Your task to perform on an android device: set an alarm Image 0: 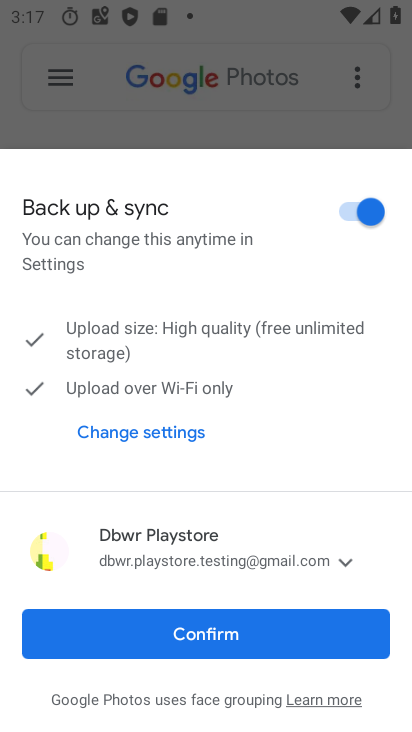
Step 0: press home button
Your task to perform on an android device: set an alarm Image 1: 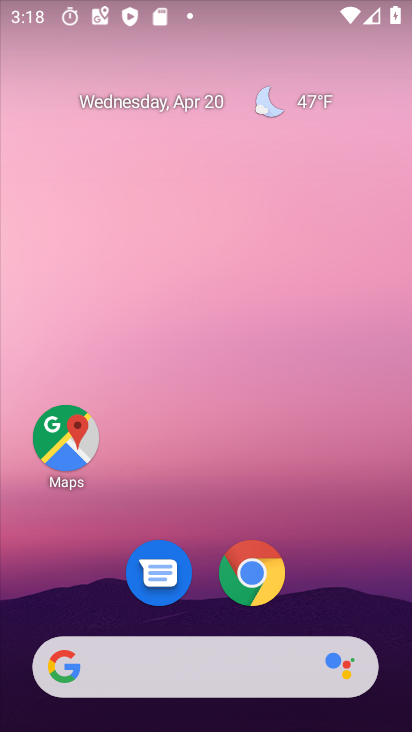
Step 1: drag from (211, 723) to (203, 179)
Your task to perform on an android device: set an alarm Image 2: 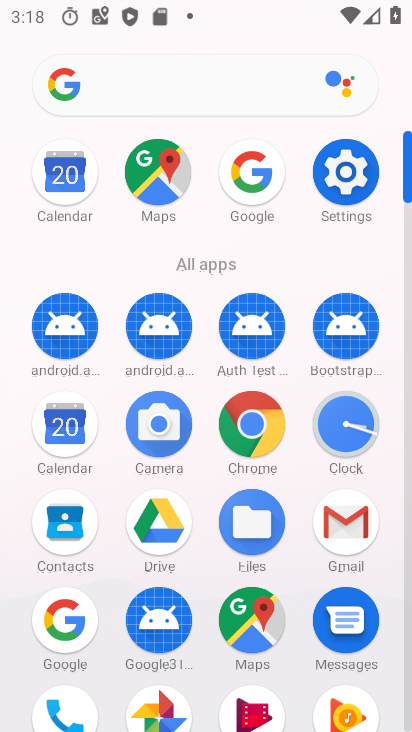
Step 2: click (351, 424)
Your task to perform on an android device: set an alarm Image 3: 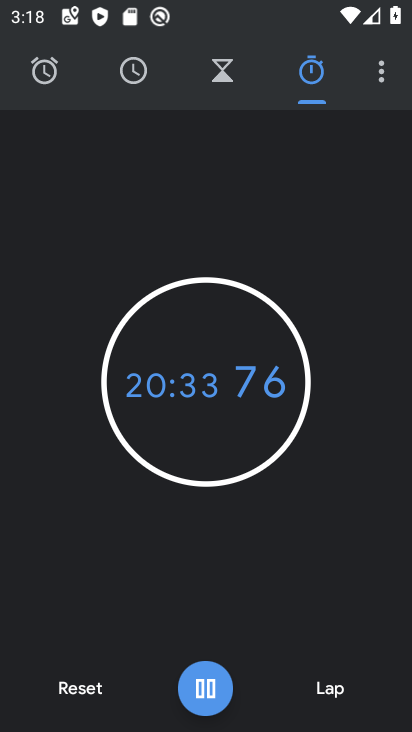
Step 3: click (44, 68)
Your task to perform on an android device: set an alarm Image 4: 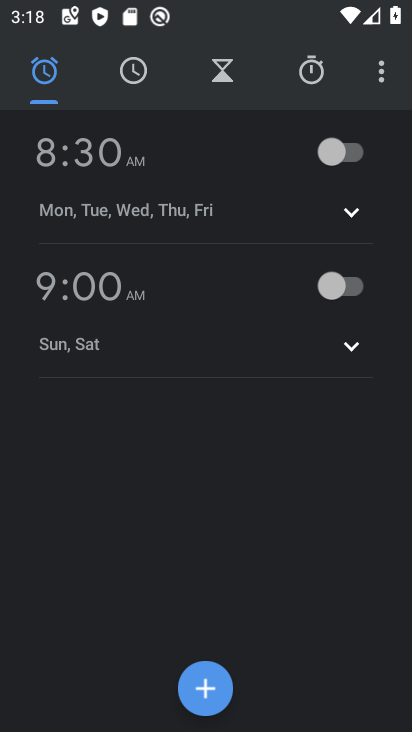
Step 4: click (207, 683)
Your task to perform on an android device: set an alarm Image 5: 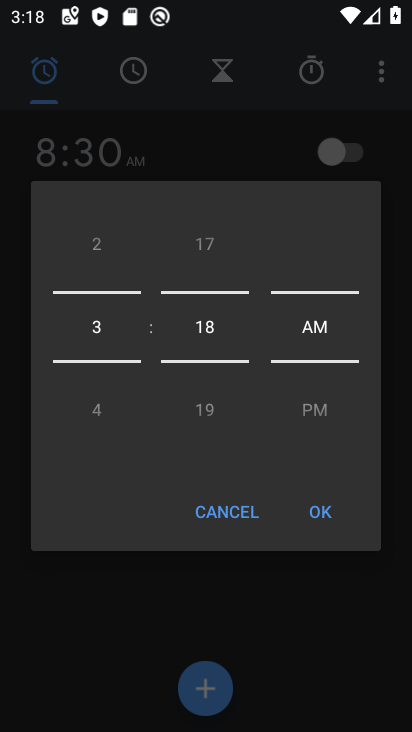
Step 5: drag from (101, 409) to (110, 211)
Your task to perform on an android device: set an alarm Image 6: 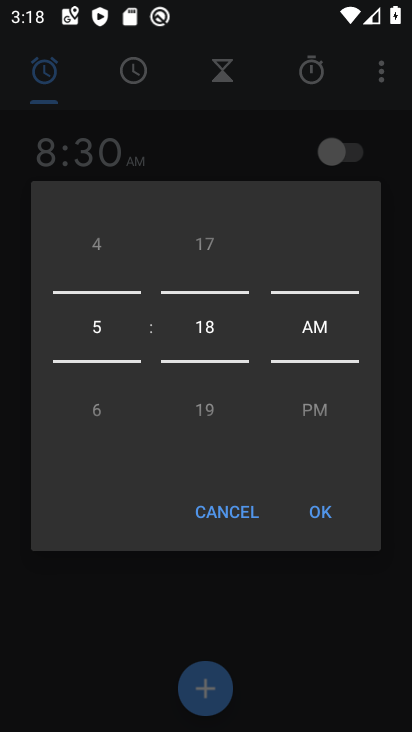
Step 6: drag from (322, 342) to (322, 259)
Your task to perform on an android device: set an alarm Image 7: 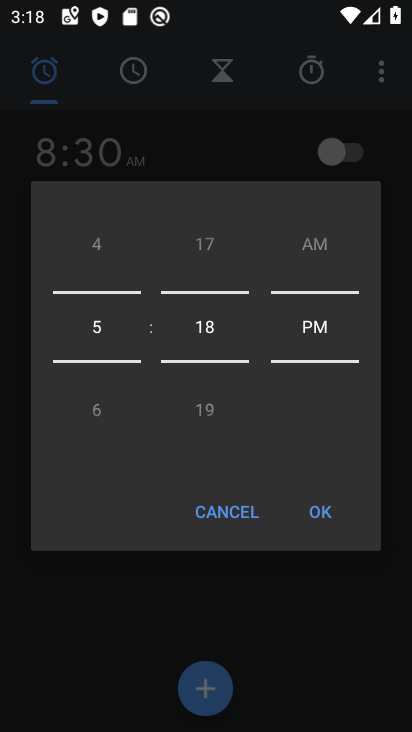
Step 7: click (322, 505)
Your task to perform on an android device: set an alarm Image 8: 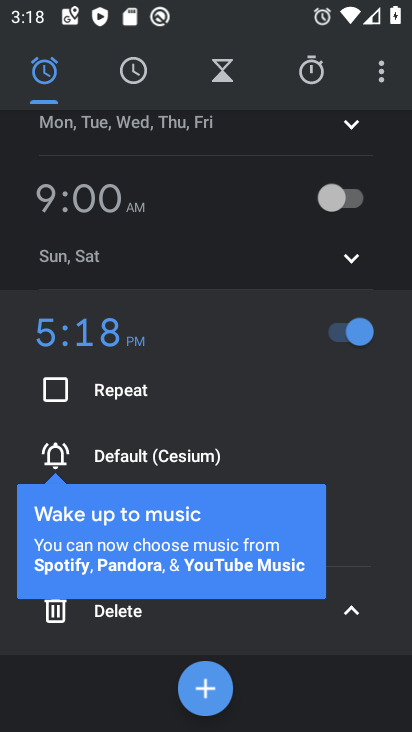
Step 8: task complete